Your task to perform on an android device: delete a single message in the gmail app Image 0: 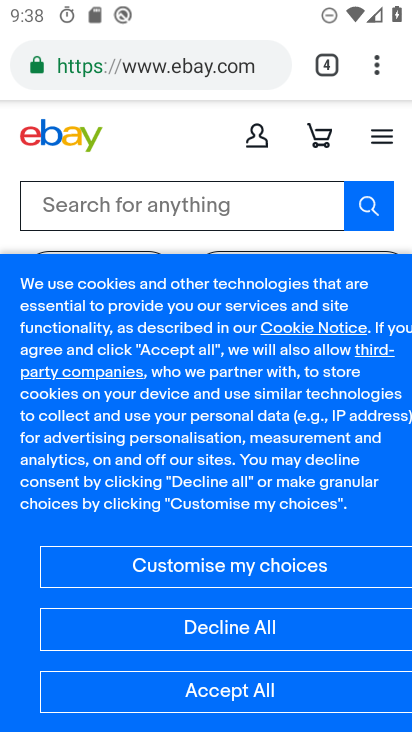
Step 0: press home button
Your task to perform on an android device: delete a single message in the gmail app Image 1: 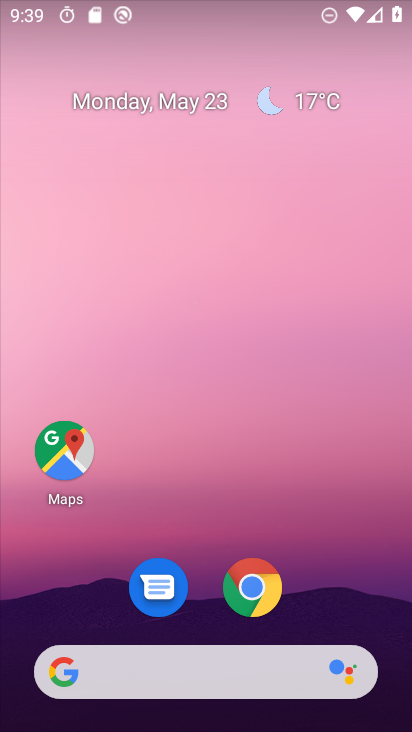
Step 1: drag from (219, 427) to (288, 138)
Your task to perform on an android device: delete a single message in the gmail app Image 2: 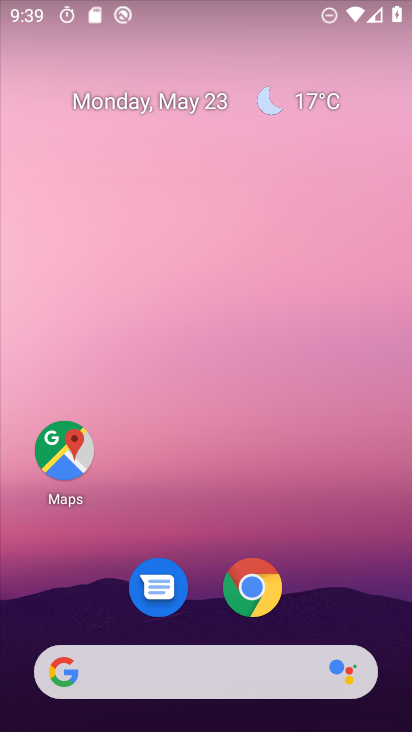
Step 2: drag from (229, 490) to (289, 65)
Your task to perform on an android device: delete a single message in the gmail app Image 3: 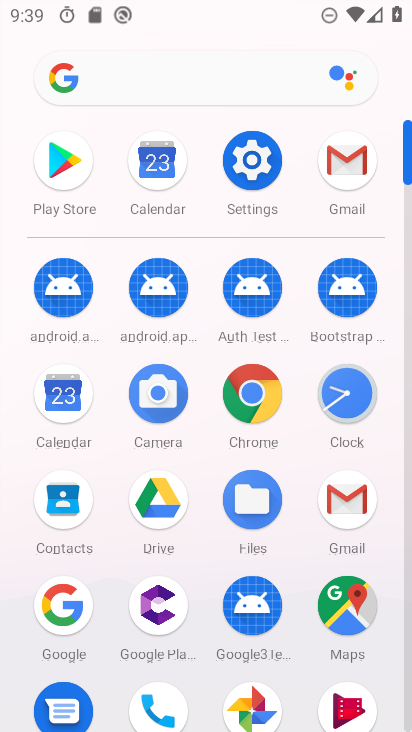
Step 3: click (334, 162)
Your task to perform on an android device: delete a single message in the gmail app Image 4: 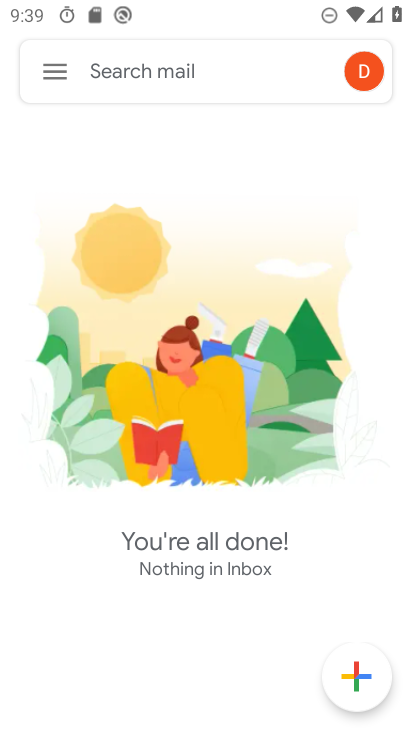
Step 4: click (54, 70)
Your task to perform on an android device: delete a single message in the gmail app Image 5: 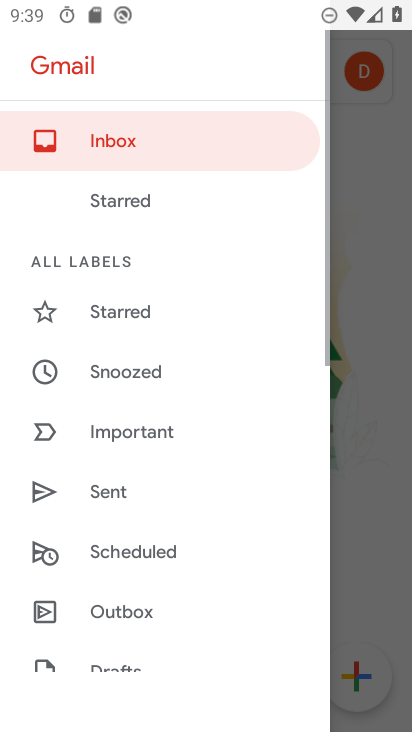
Step 5: drag from (149, 617) to (248, 161)
Your task to perform on an android device: delete a single message in the gmail app Image 6: 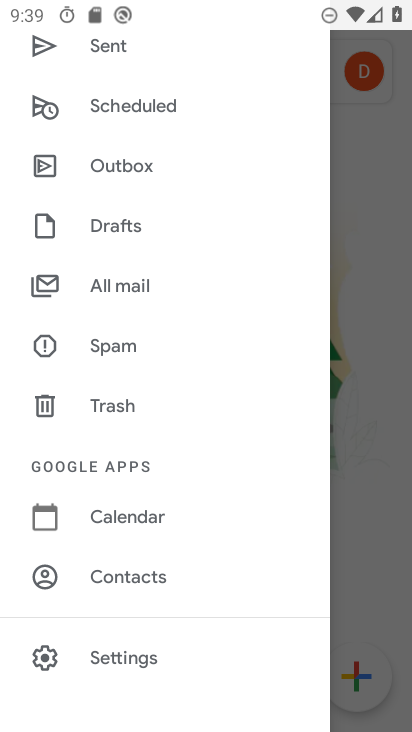
Step 6: click (110, 282)
Your task to perform on an android device: delete a single message in the gmail app Image 7: 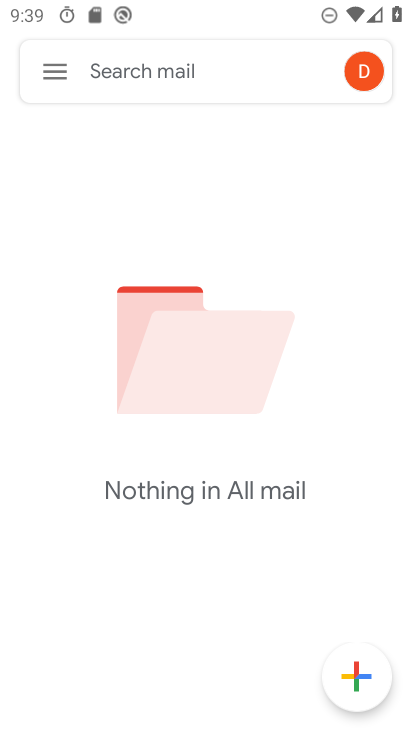
Step 7: task complete